Your task to perform on an android device: turn on data saver in the chrome app Image 0: 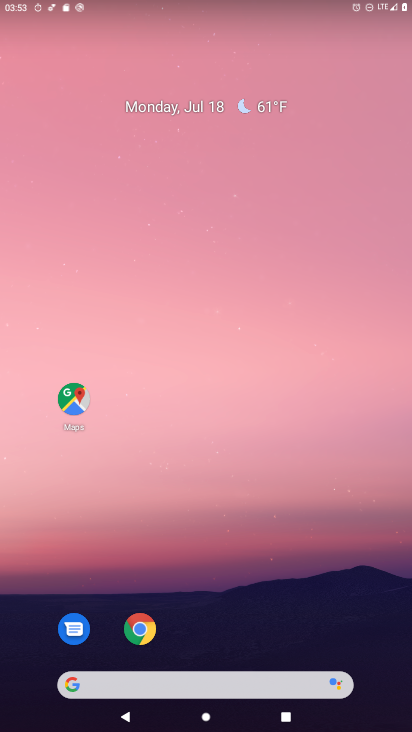
Step 0: click (141, 630)
Your task to perform on an android device: turn on data saver in the chrome app Image 1: 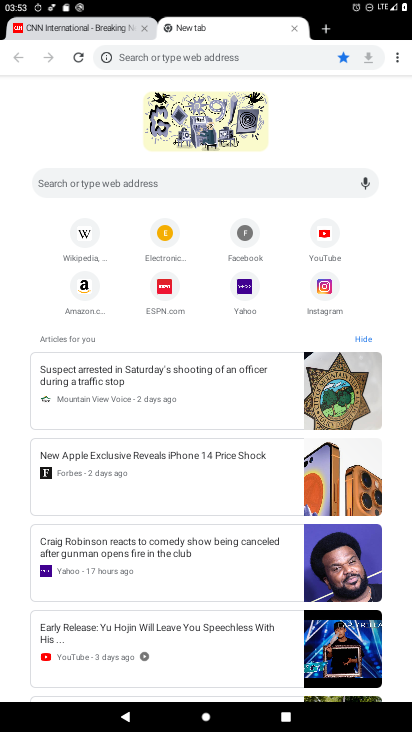
Step 1: click (399, 55)
Your task to perform on an android device: turn on data saver in the chrome app Image 2: 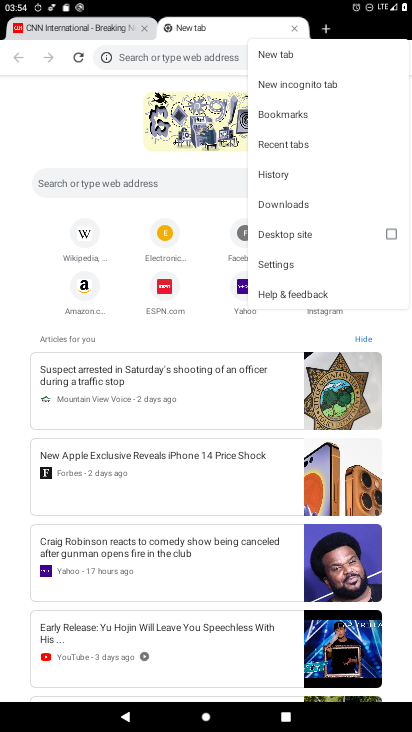
Step 2: click (283, 264)
Your task to perform on an android device: turn on data saver in the chrome app Image 3: 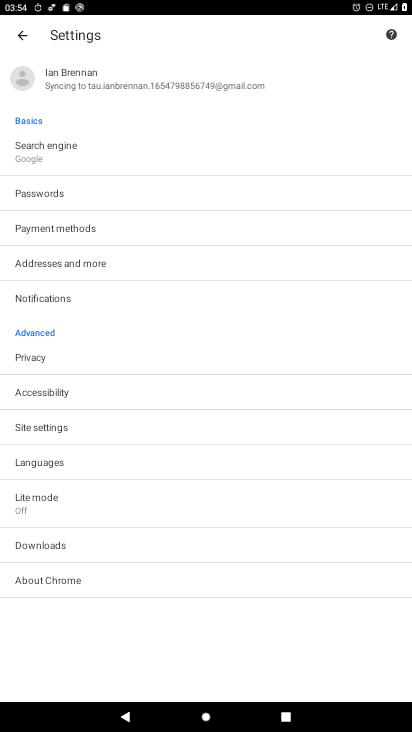
Step 3: click (43, 499)
Your task to perform on an android device: turn on data saver in the chrome app Image 4: 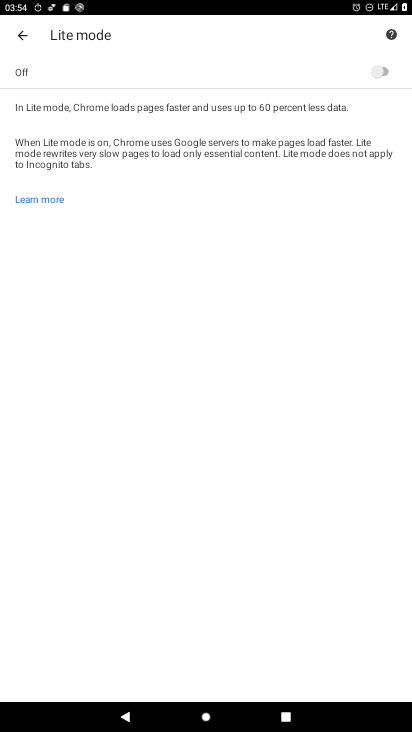
Step 4: click (381, 68)
Your task to perform on an android device: turn on data saver in the chrome app Image 5: 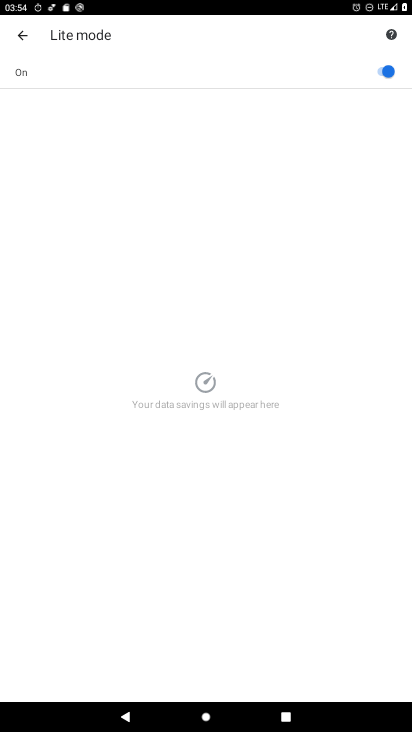
Step 5: task complete